Your task to perform on an android device: Go to location settings Image 0: 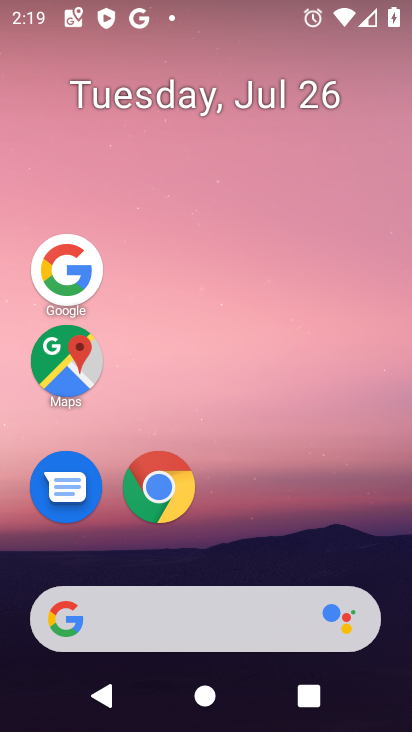
Step 0: drag from (221, 592) to (361, 38)
Your task to perform on an android device: Go to location settings Image 1: 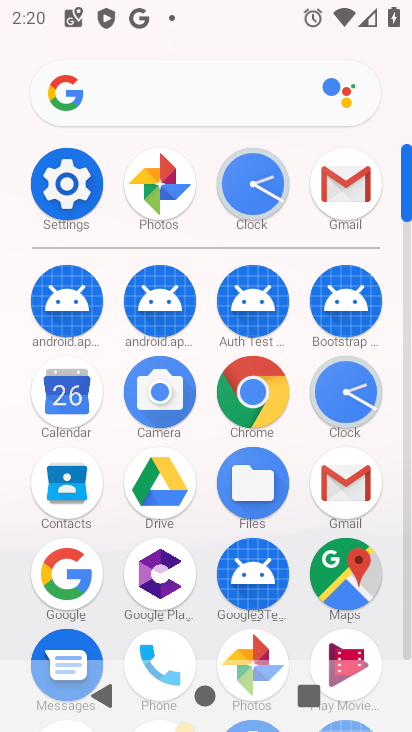
Step 1: click (52, 209)
Your task to perform on an android device: Go to location settings Image 2: 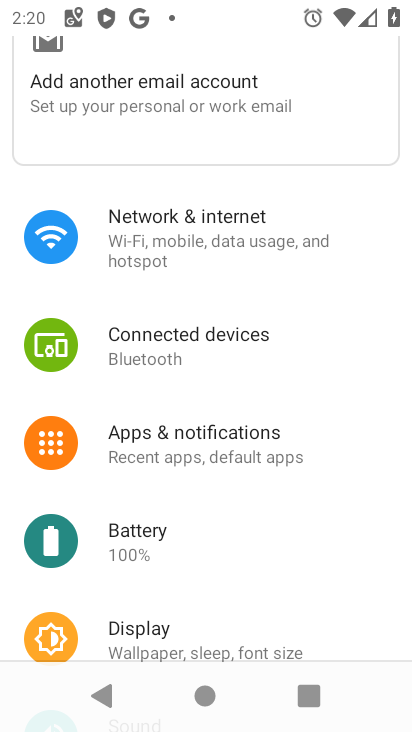
Step 2: drag from (143, 500) to (166, 122)
Your task to perform on an android device: Go to location settings Image 3: 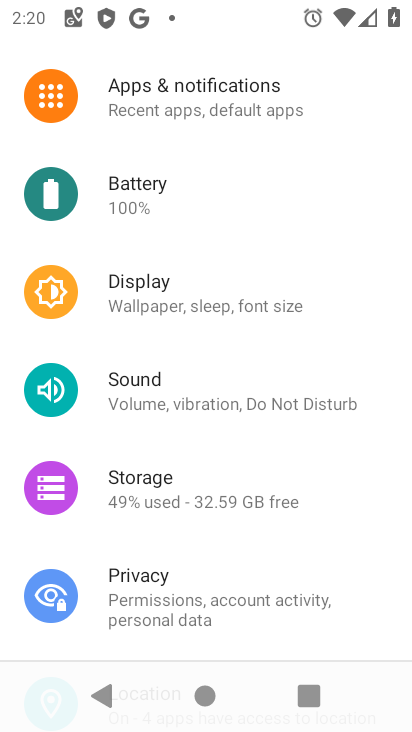
Step 3: drag from (219, 564) to (198, 294)
Your task to perform on an android device: Go to location settings Image 4: 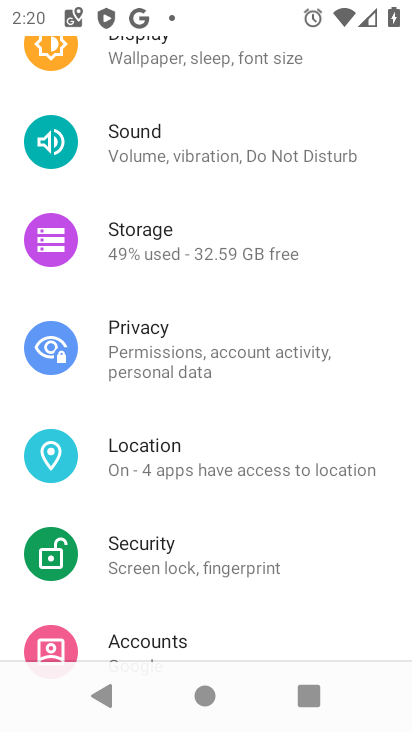
Step 4: click (176, 484)
Your task to perform on an android device: Go to location settings Image 5: 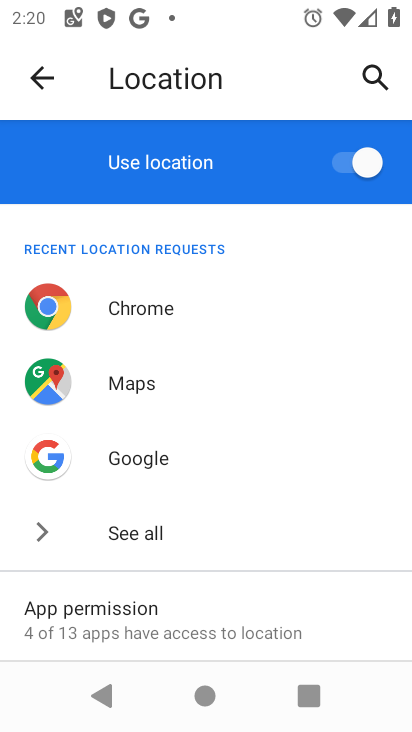
Step 5: task complete